Your task to perform on an android device: open app "Spotify: Music and Podcasts" (install if not already installed), go to login, and select forgot password Image 0: 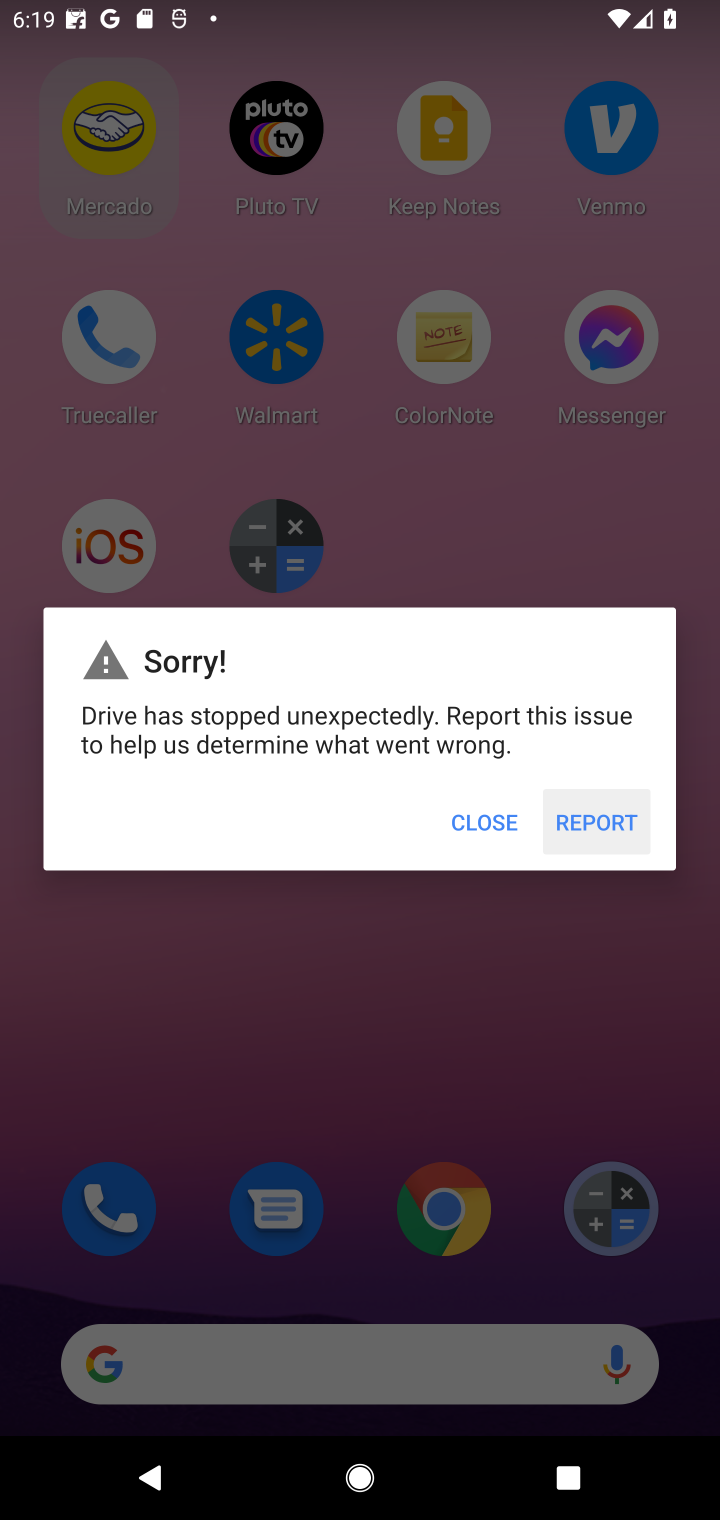
Step 0: click (468, 825)
Your task to perform on an android device: open app "Spotify: Music and Podcasts" (install if not already installed), go to login, and select forgot password Image 1: 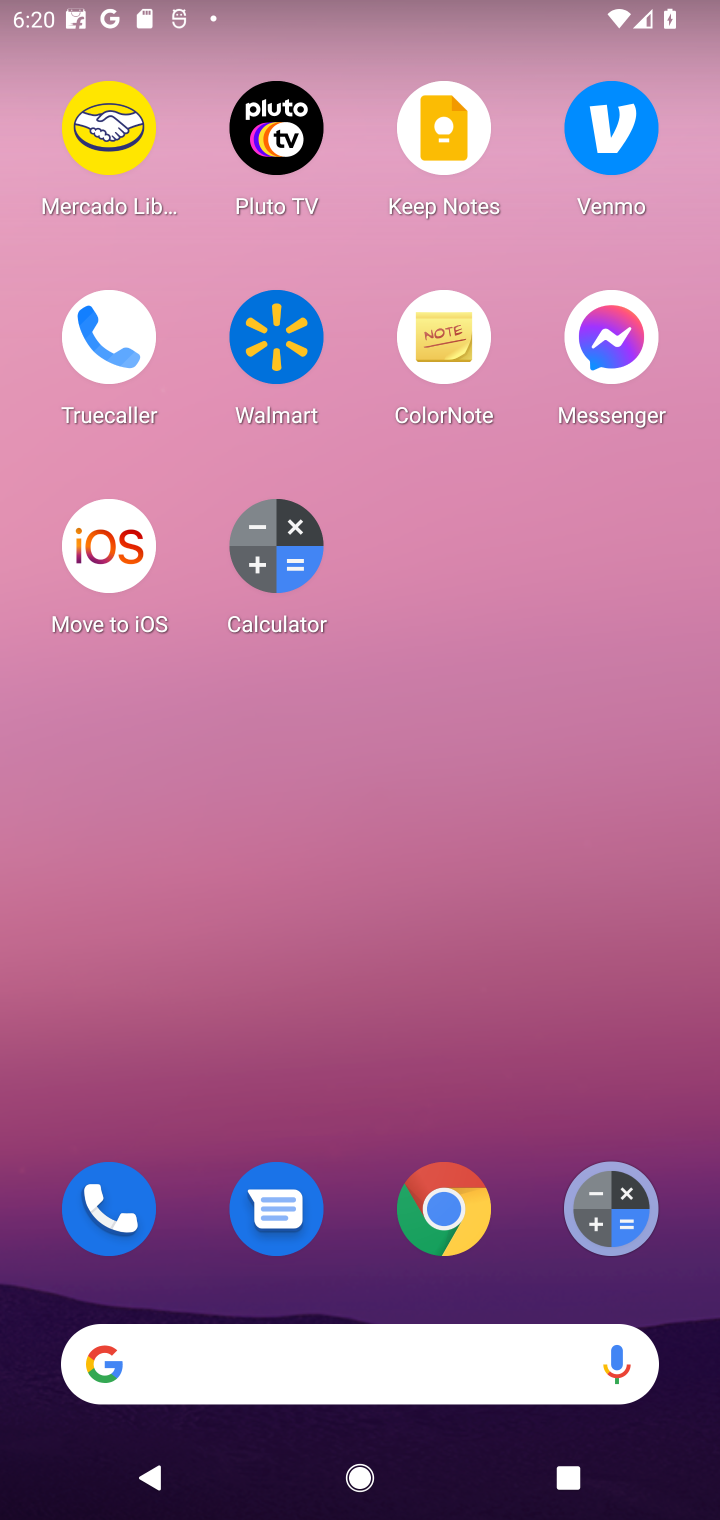
Step 1: drag from (347, 1274) to (391, 403)
Your task to perform on an android device: open app "Spotify: Music and Podcasts" (install if not already installed), go to login, and select forgot password Image 2: 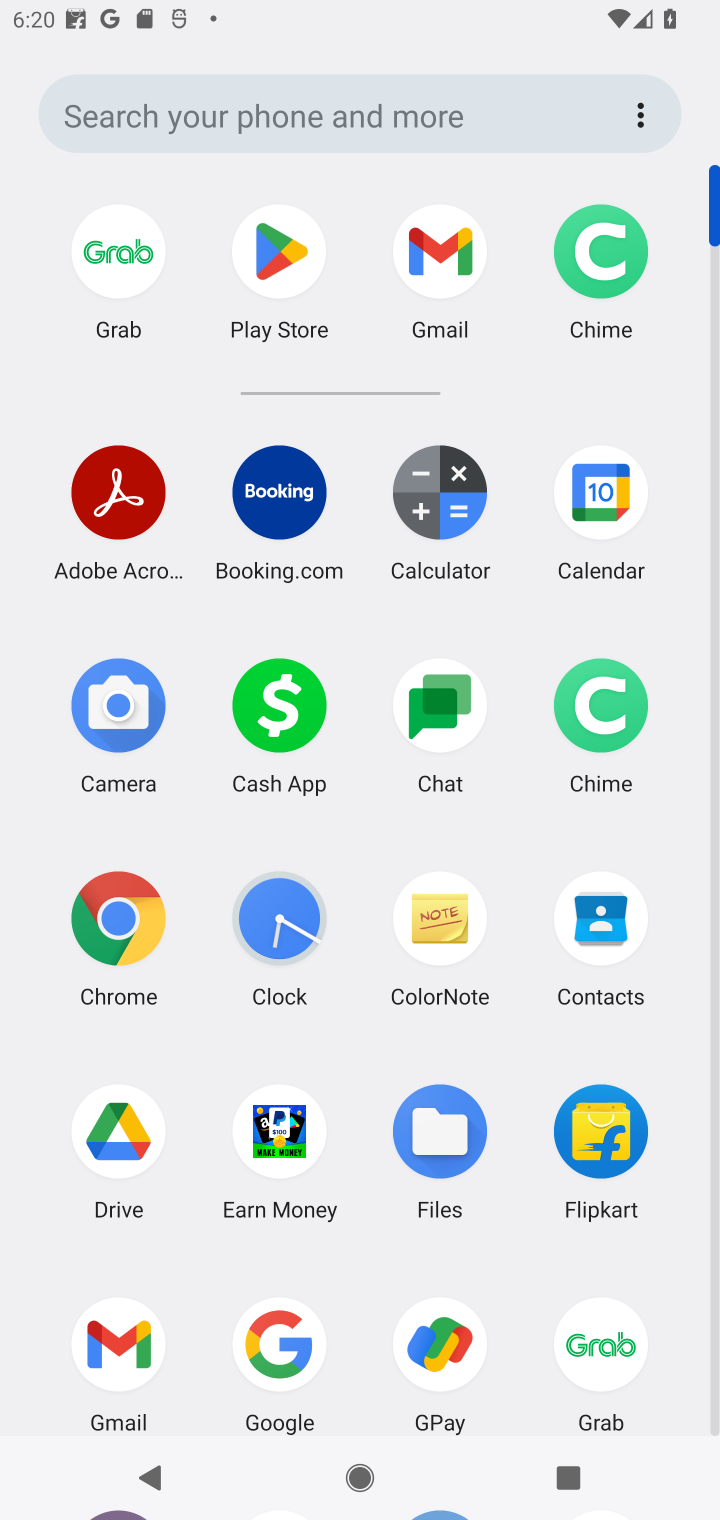
Step 2: click (316, 254)
Your task to perform on an android device: open app "Spotify: Music and Podcasts" (install if not already installed), go to login, and select forgot password Image 3: 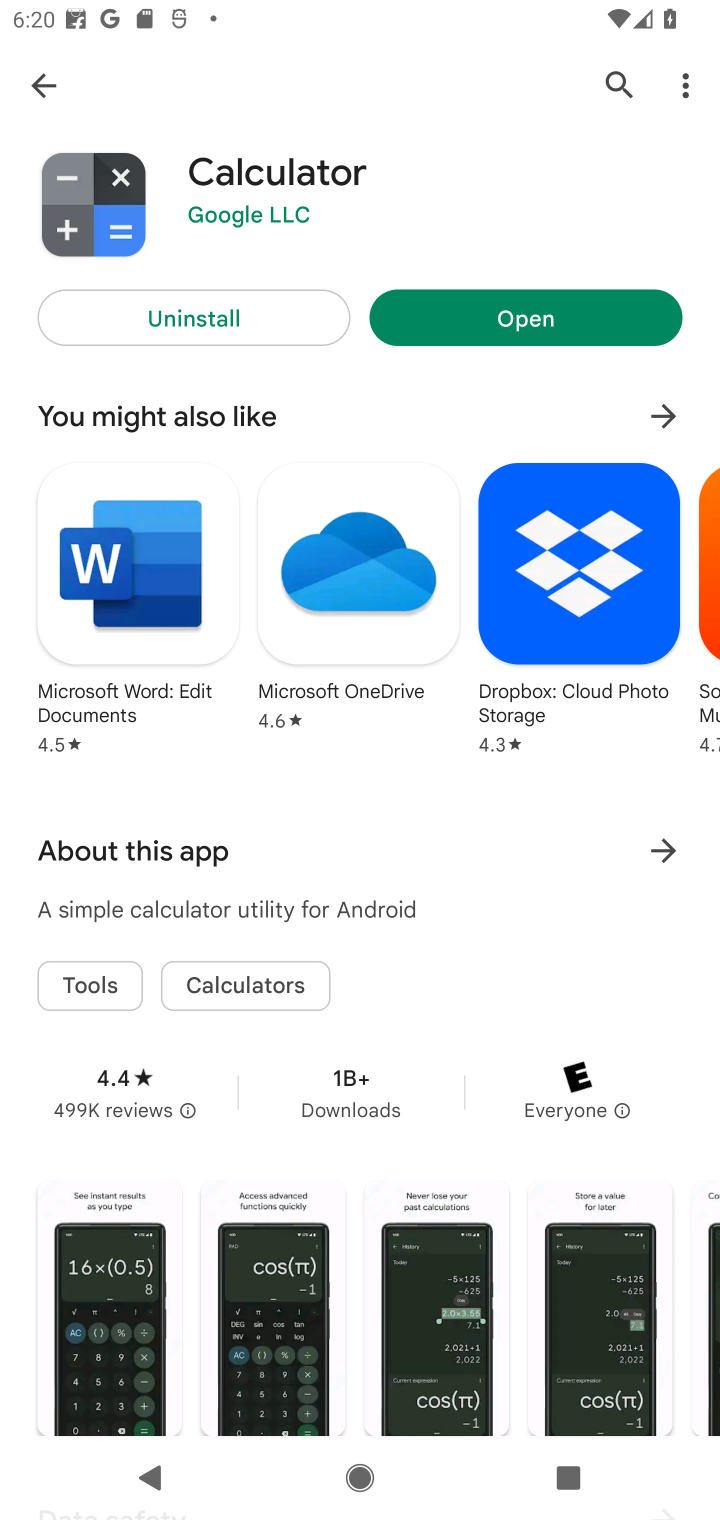
Step 3: click (596, 93)
Your task to perform on an android device: open app "Spotify: Music and Podcasts" (install if not already installed), go to login, and select forgot password Image 4: 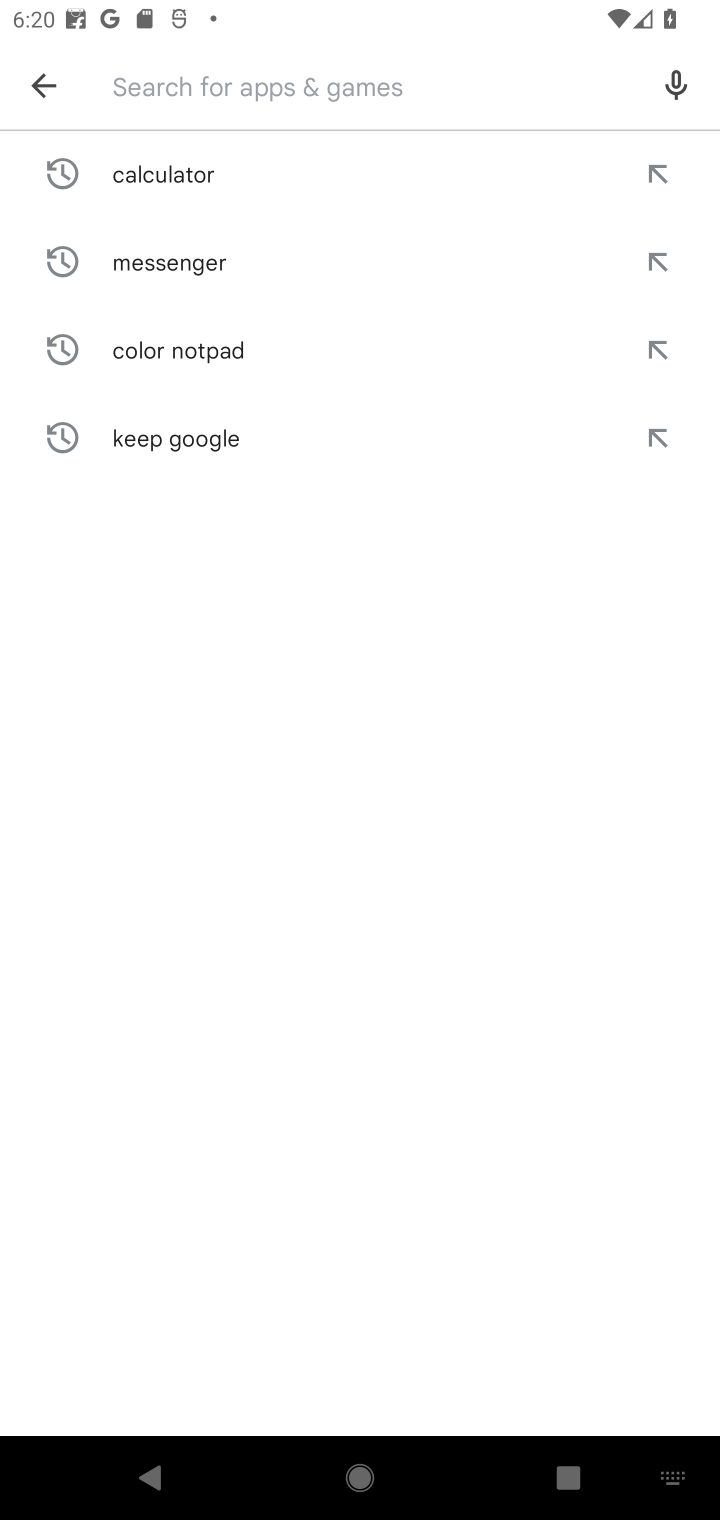
Step 4: type "spotify"
Your task to perform on an android device: open app "Spotify: Music and Podcasts" (install if not already installed), go to login, and select forgot password Image 5: 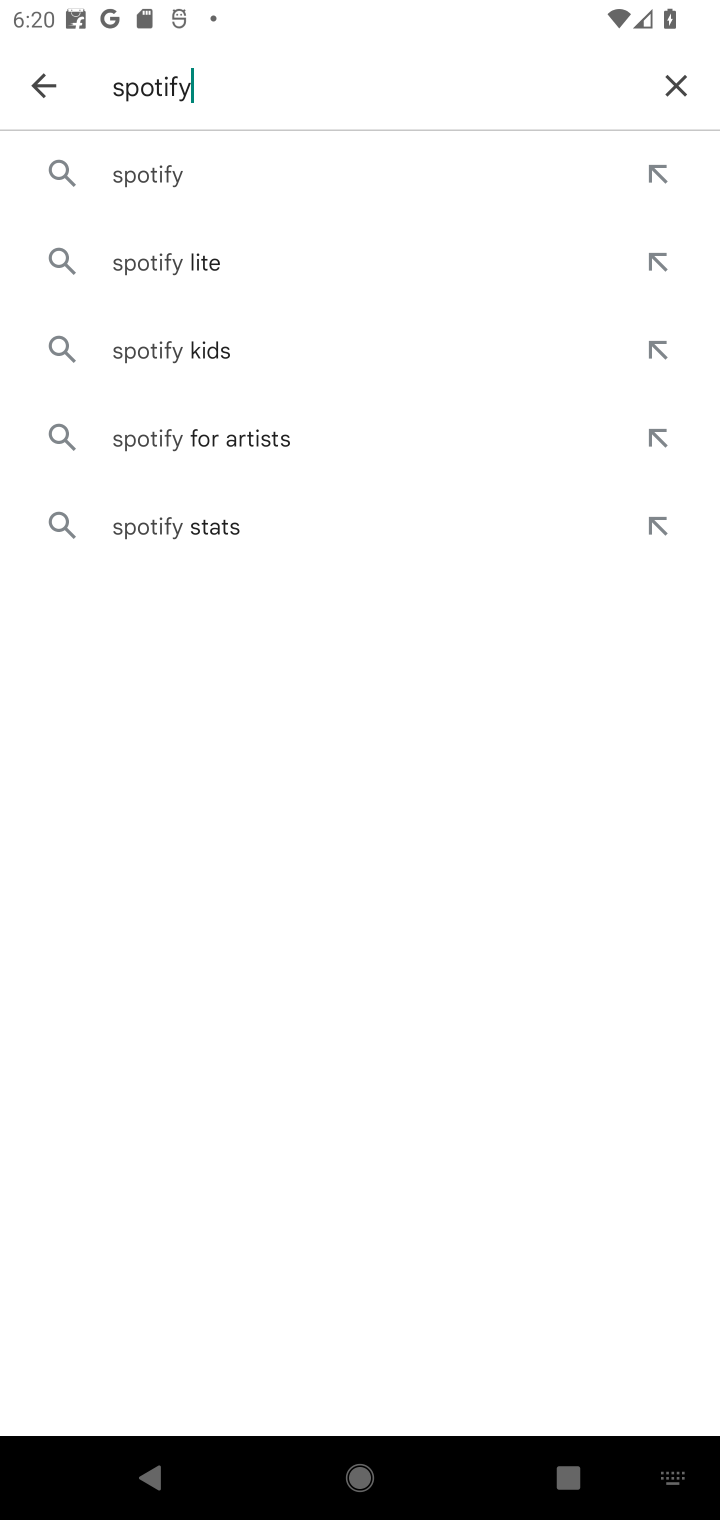
Step 5: click (305, 183)
Your task to perform on an android device: open app "Spotify: Music and Podcasts" (install if not already installed), go to login, and select forgot password Image 6: 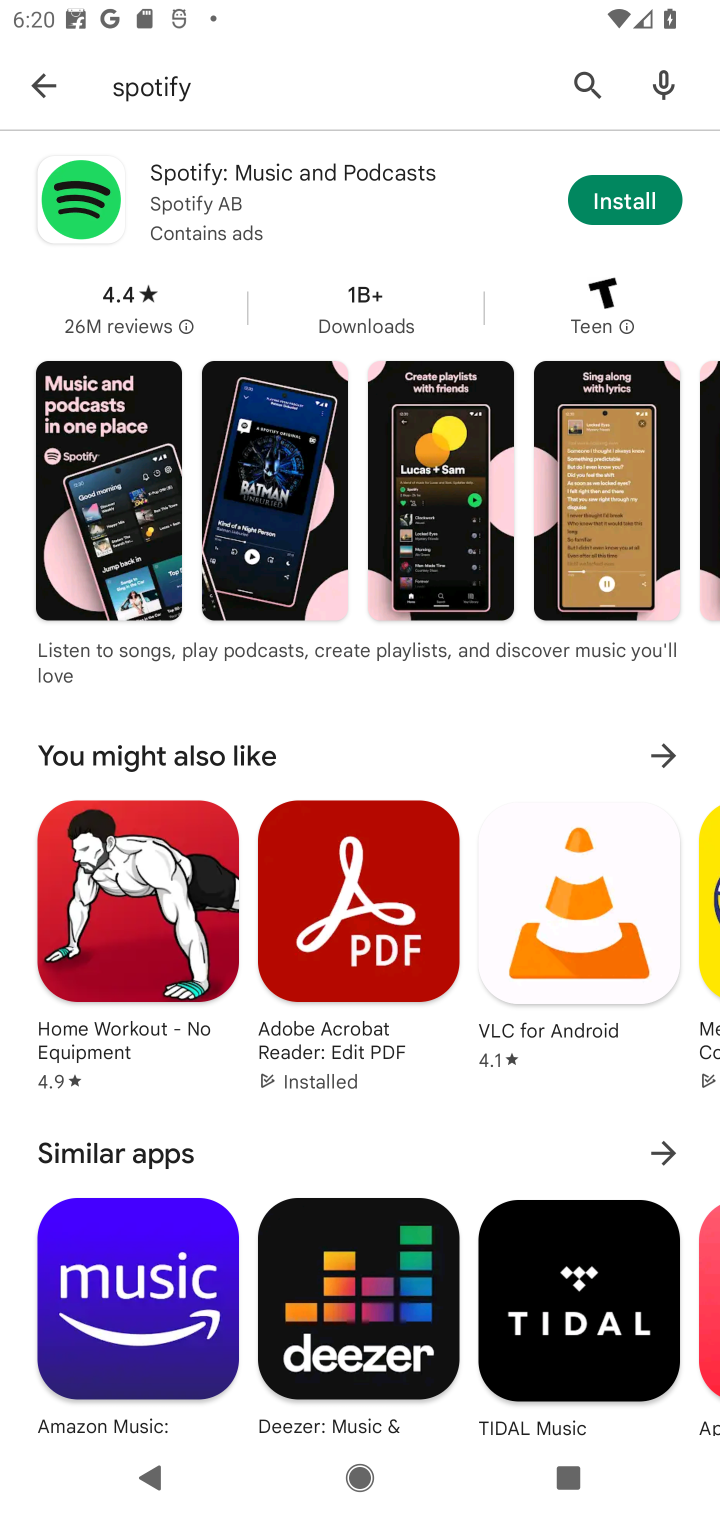
Step 6: click (578, 200)
Your task to perform on an android device: open app "Spotify: Music and Podcasts" (install if not already installed), go to login, and select forgot password Image 7: 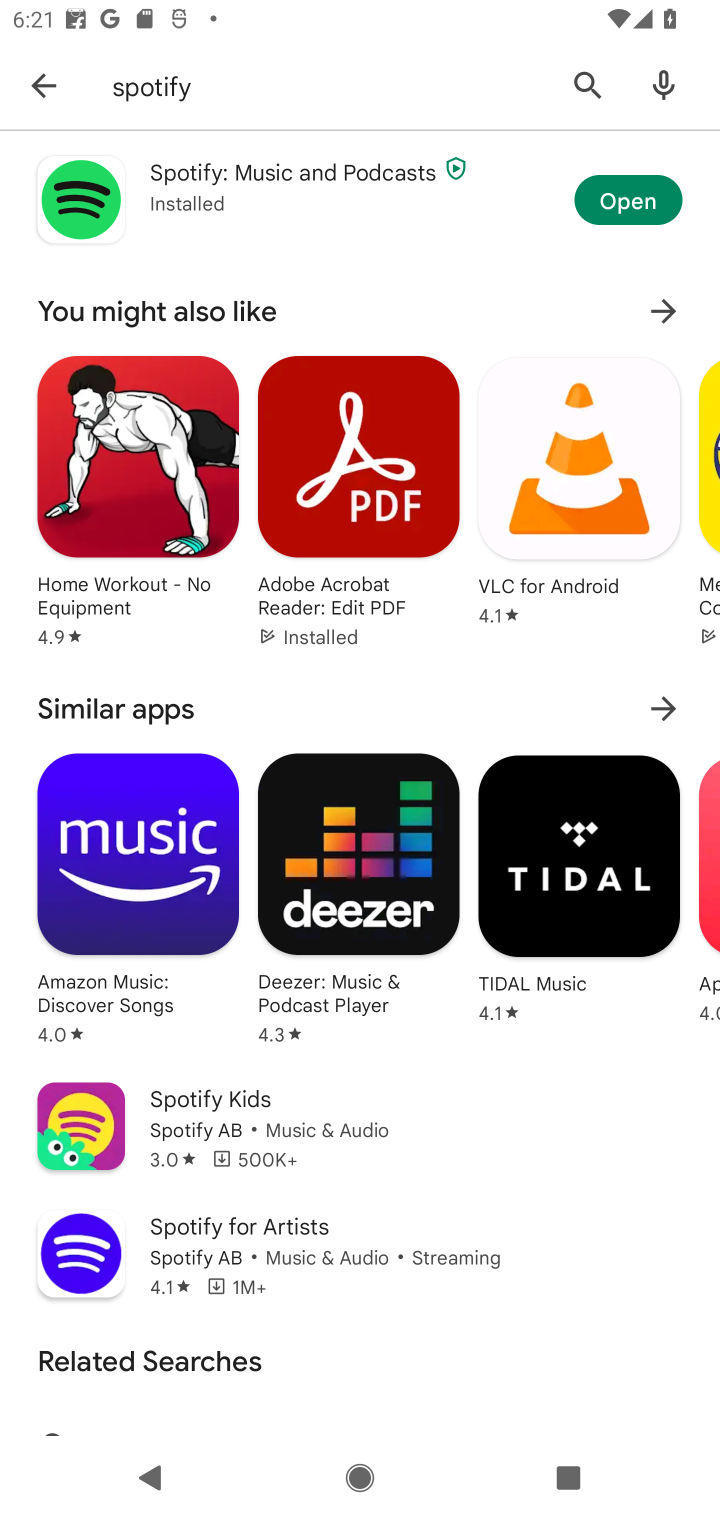
Step 7: click (594, 219)
Your task to perform on an android device: open app "Spotify: Music and Podcasts" (install if not already installed), go to login, and select forgot password Image 8: 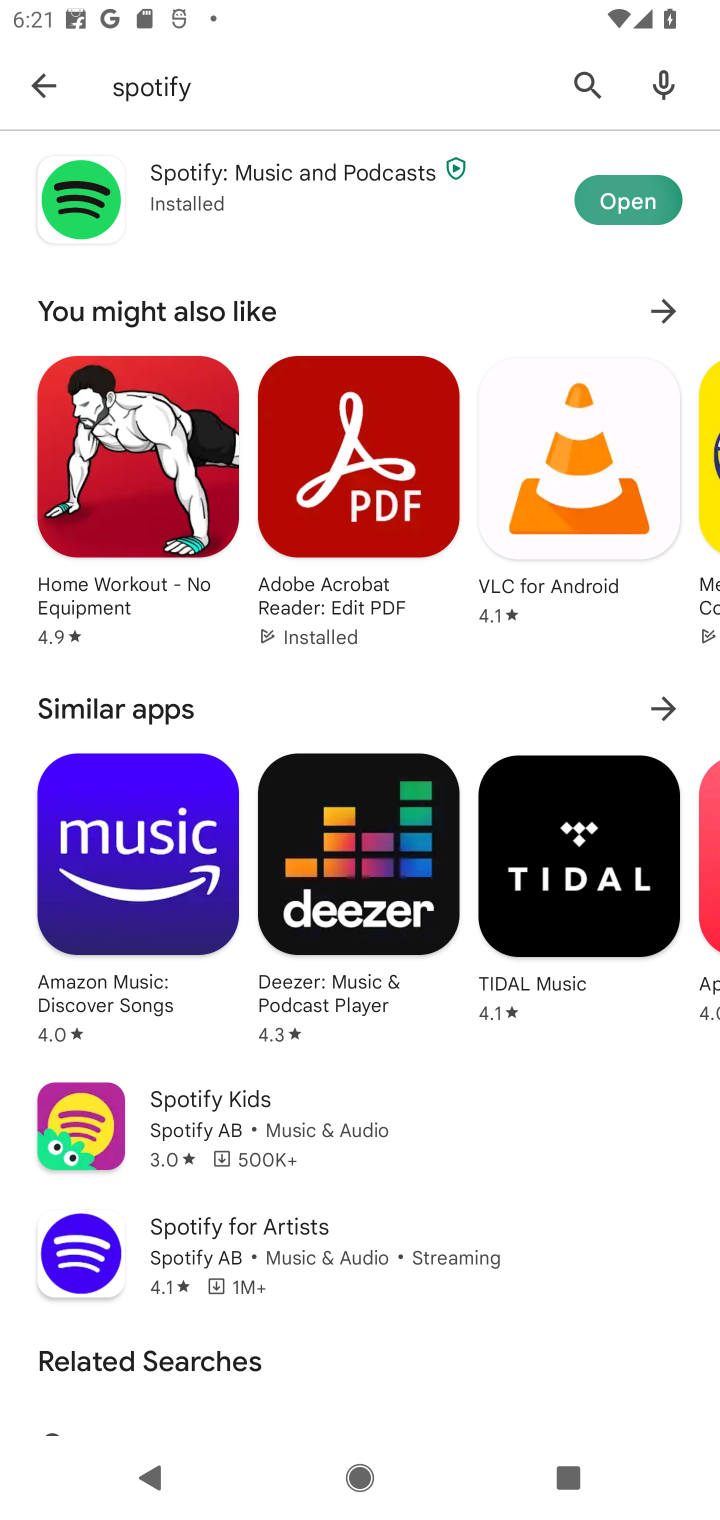
Step 8: task complete